Your task to perform on an android device: Open network settings Image 0: 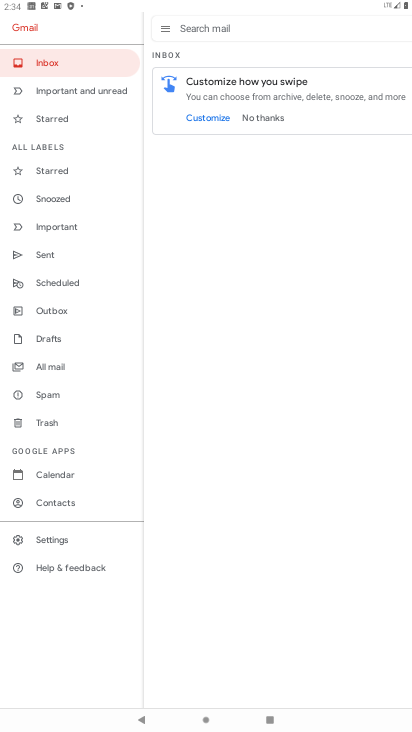
Step 0: press home button
Your task to perform on an android device: Open network settings Image 1: 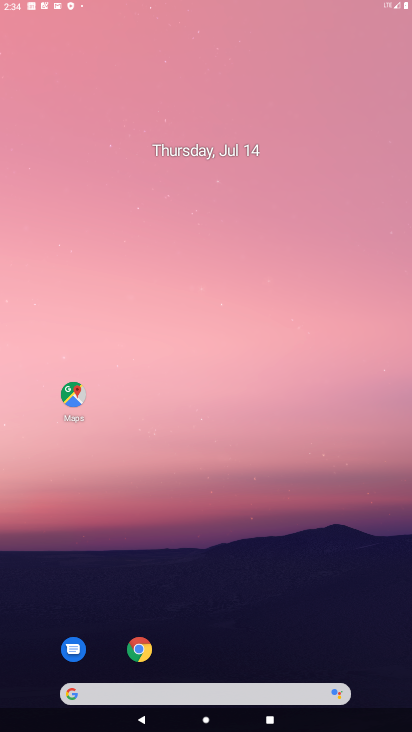
Step 1: drag from (357, 689) to (214, 25)
Your task to perform on an android device: Open network settings Image 2: 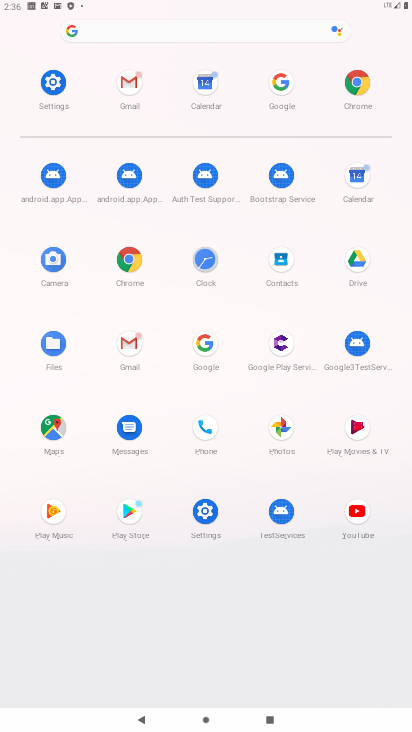
Step 2: click (190, 530)
Your task to perform on an android device: Open network settings Image 3: 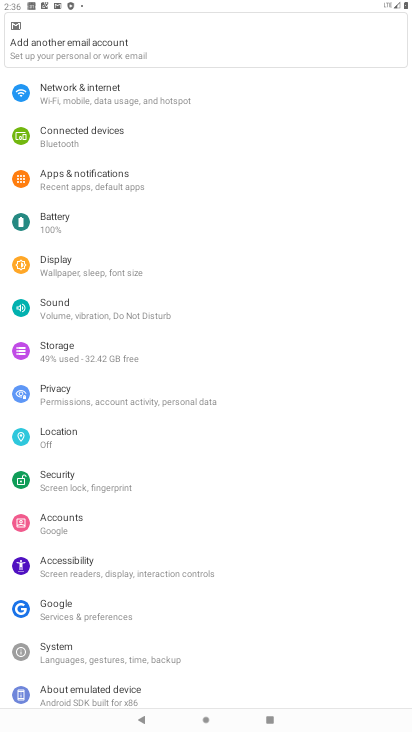
Step 3: click (101, 88)
Your task to perform on an android device: Open network settings Image 4: 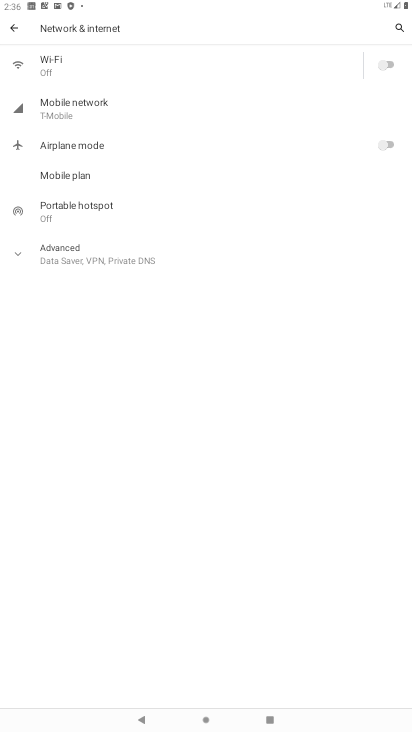
Step 4: task complete